Your task to perform on an android device: Open Yahoo.com Image 0: 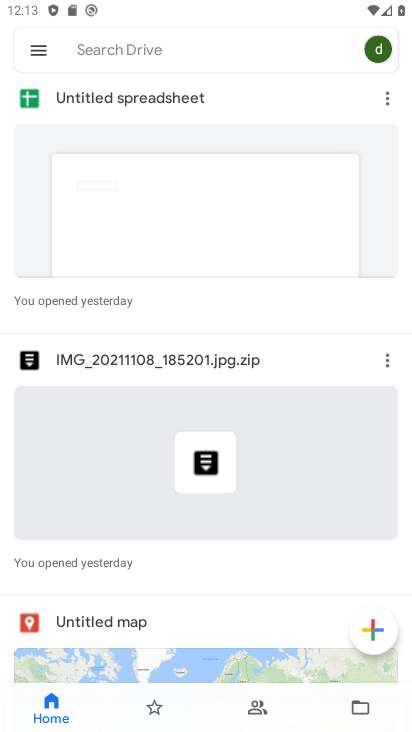
Step 0: press home button
Your task to perform on an android device: Open Yahoo.com Image 1: 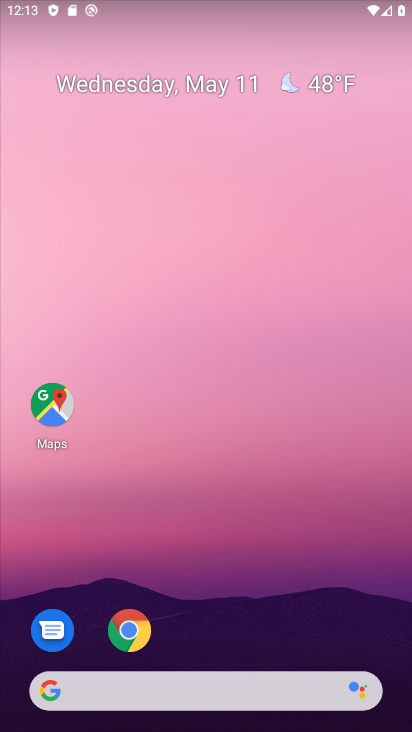
Step 1: click (146, 639)
Your task to perform on an android device: Open Yahoo.com Image 2: 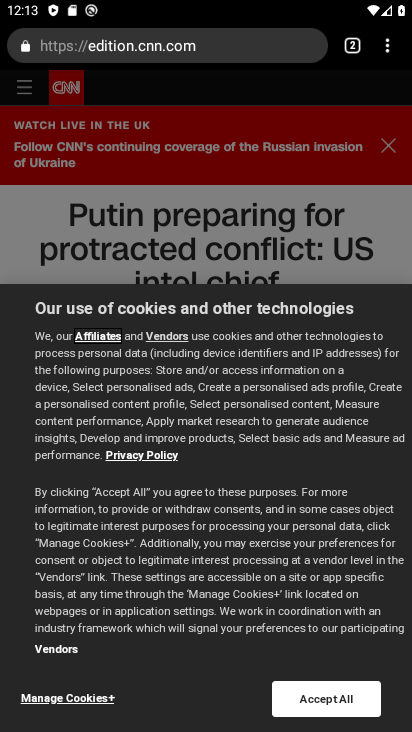
Step 2: click (355, 48)
Your task to perform on an android device: Open Yahoo.com Image 3: 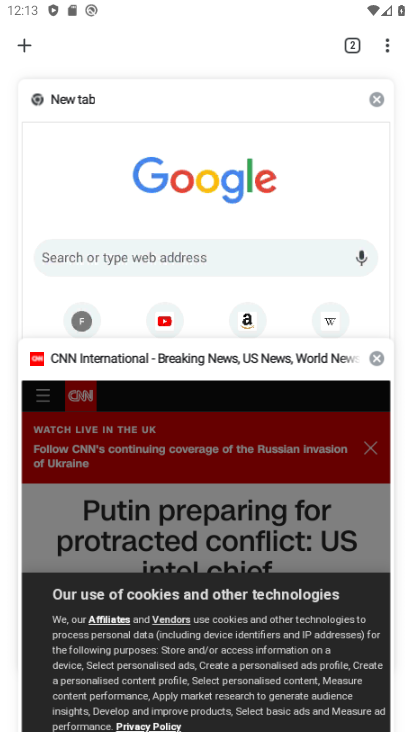
Step 3: click (21, 45)
Your task to perform on an android device: Open Yahoo.com Image 4: 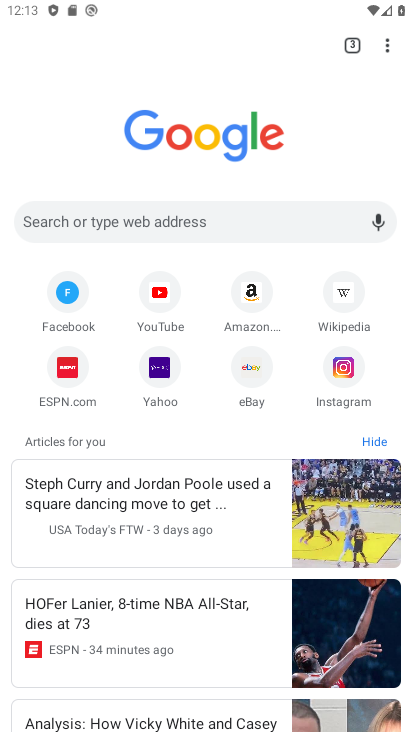
Step 4: click (150, 371)
Your task to perform on an android device: Open Yahoo.com Image 5: 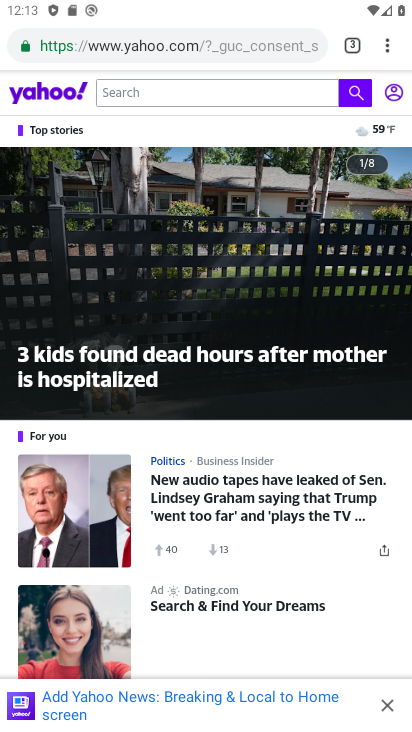
Step 5: task complete